Your task to perform on an android device: Open settings on Google Maps Image 0: 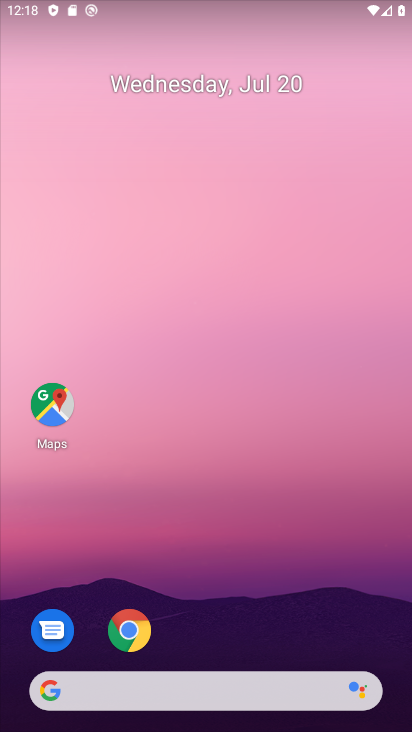
Step 0: click (52, 403)
Your task to perform on an android device: Open settings on Google Maps Image 1: 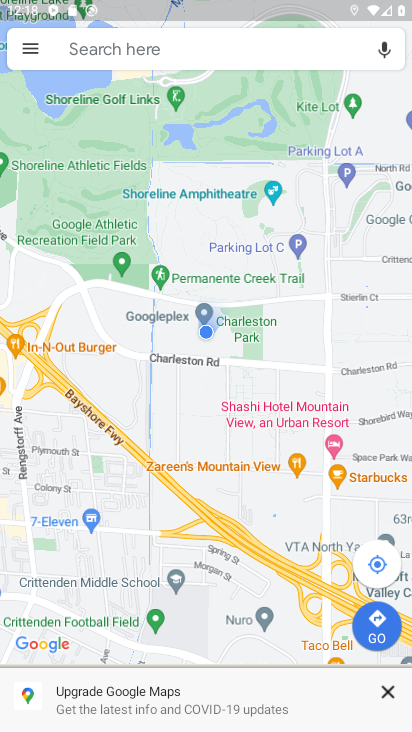
Step 1: click (26, 38)
Your task to perform on an android device: Open settings on Google Maps Image 2: 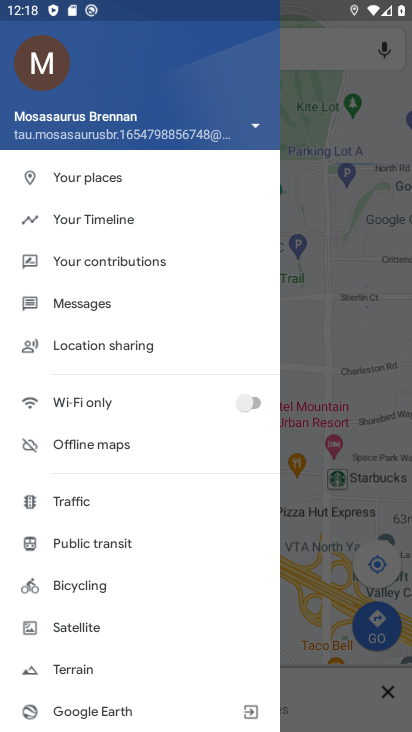
Step 2: drag from (155, 635) to (155, 312)
Your task to perform on an android device: Open settings on Google Maps Image 3: 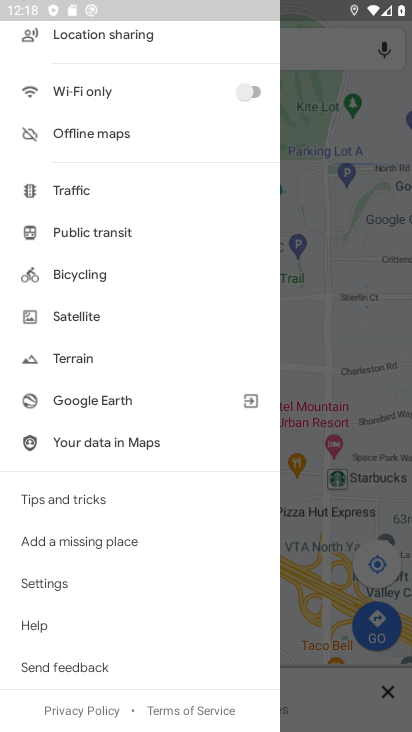
Step 3: click (44, 582)
Your task to perform on an android device: Open settings on Google Maps Image 4: 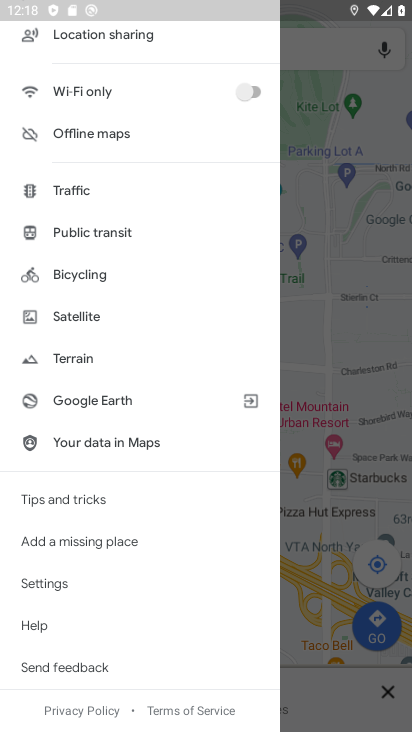
Step 4: click (44, 582)
Your task to perform on an android device: Open settings on Google Maps Image 5: 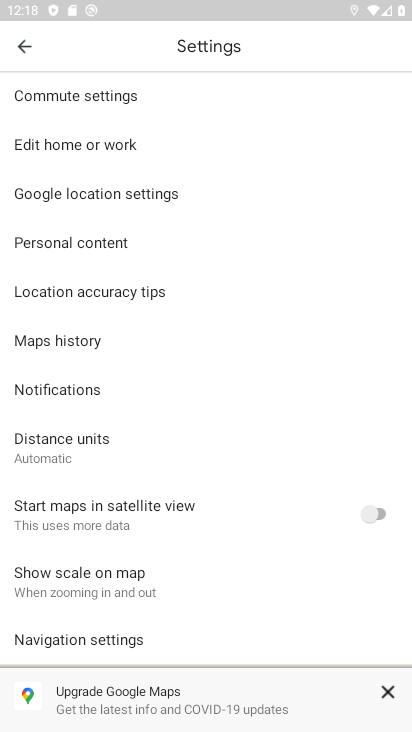
Step 5: task complete